Your task to perform on an android device: What's the weather going to be this weekend? Image 0: 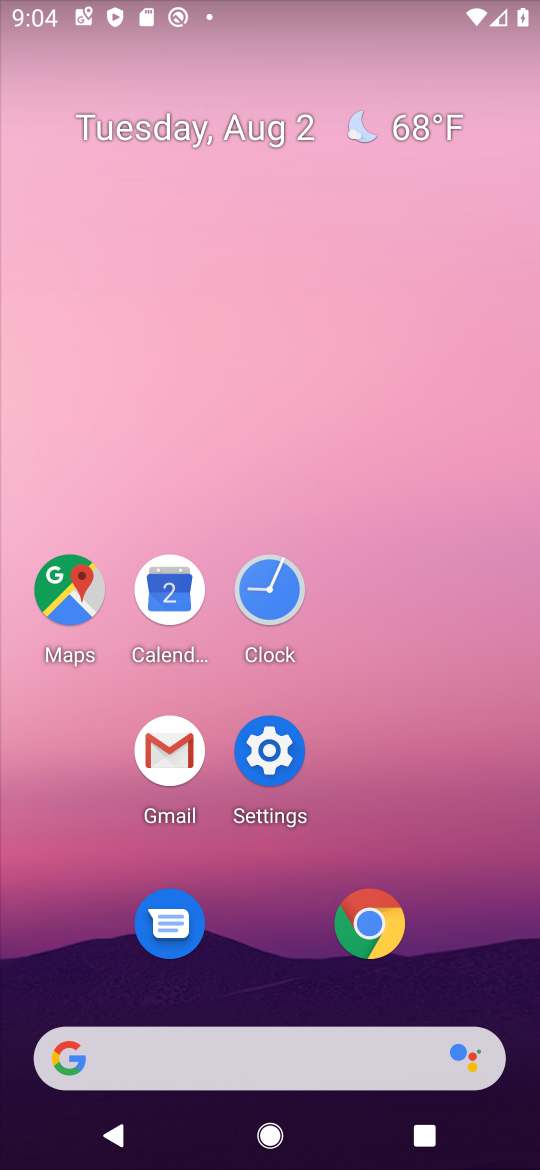
Step 0: click (159, 581)
Your task to perform on an android device: What's the weather going to be this weekend? Image 1: 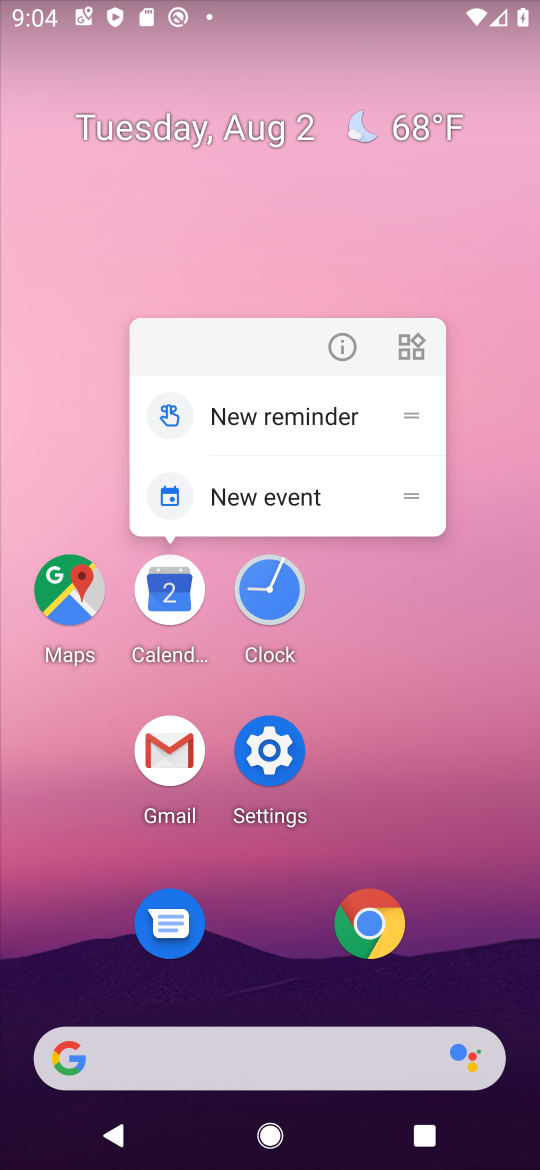
Step 1: click (167, 587)
Your task to perform on an android device: What's the weather going to be this weekend? Image 2: 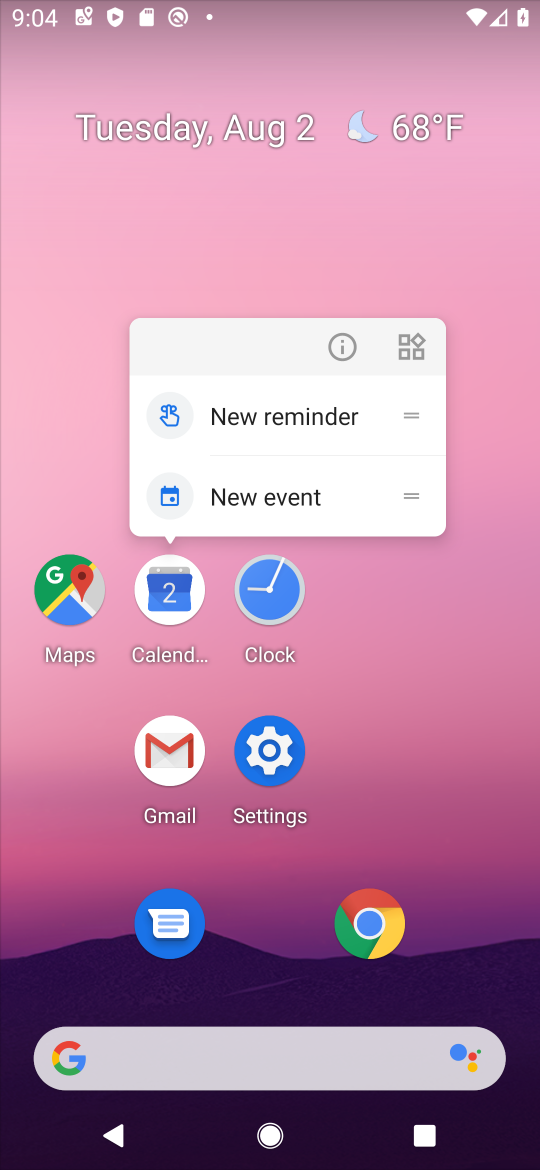
Step 2: click (277, 256)
Your task to perform on an android device: What's the weather going to be this weekend? Image 3: 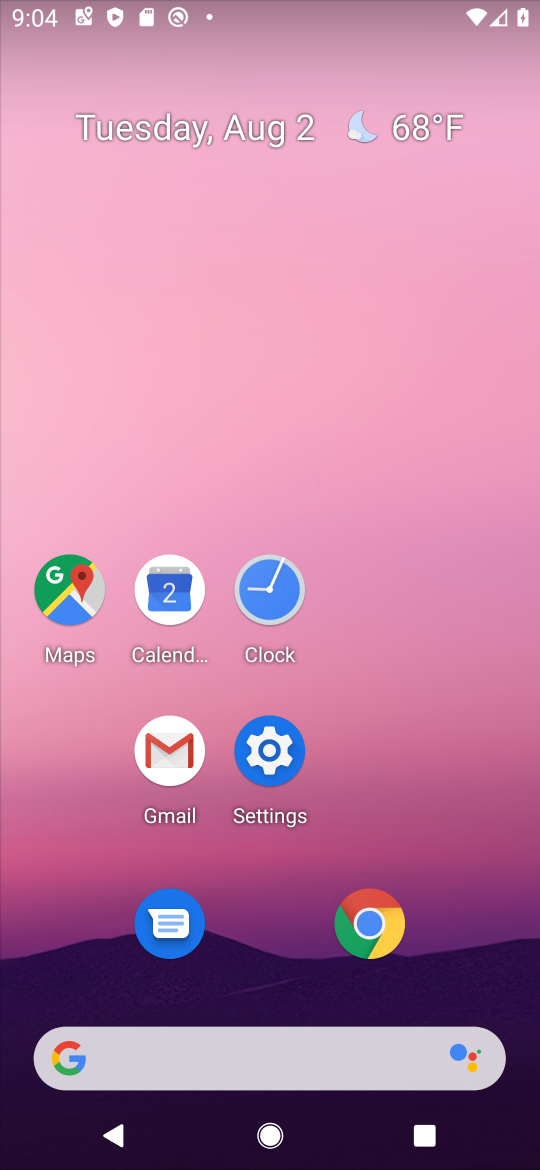
Step 3: click (426, 120)
Your task to perform on an android device: What's the weather going to be this weekend? Image 4: 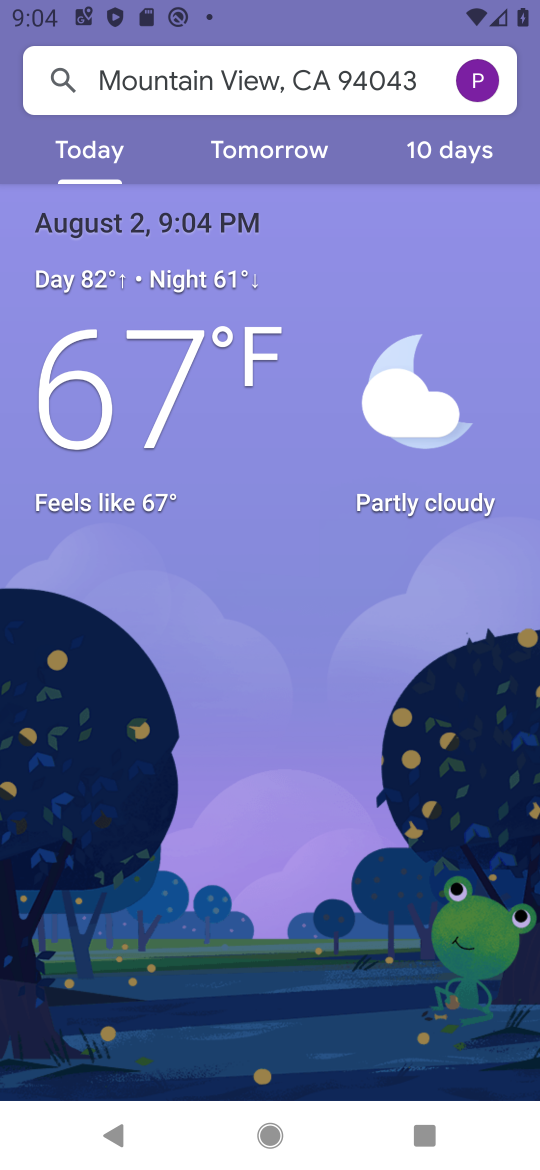
Step 4: click (162, 968)
Your task to perform on an android device: What's the weather going to be this weekend? Image 5: 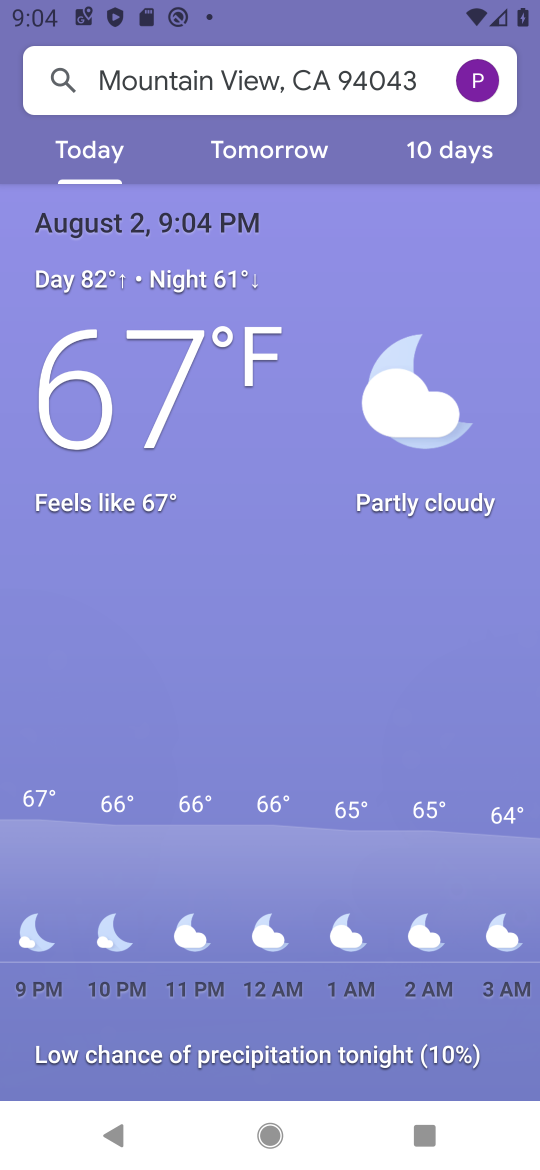
Step 5: task complete